Your task to perform on an android device: all mails in gmail Image 0: 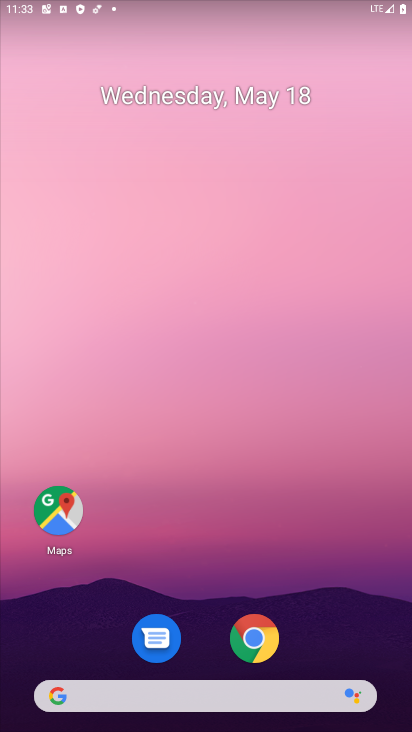
Step 0: drag from (374, 607) to (345, 65)
Your task to perform on an android device: all mails in gmail Image 1: 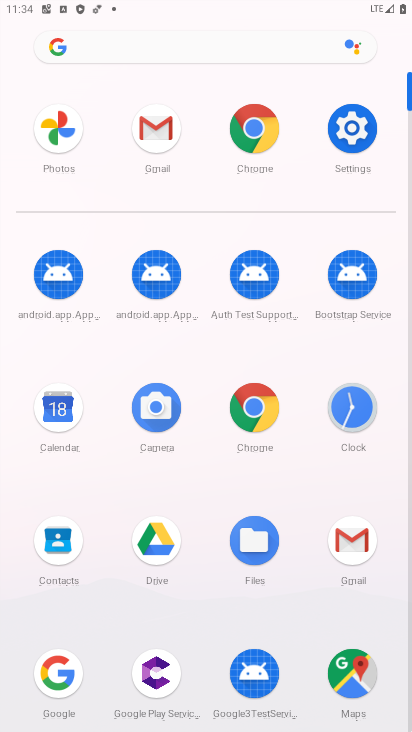
Step 1: click (355, 555)
Your task to perform on an android device: all mails in gmail Image 2: 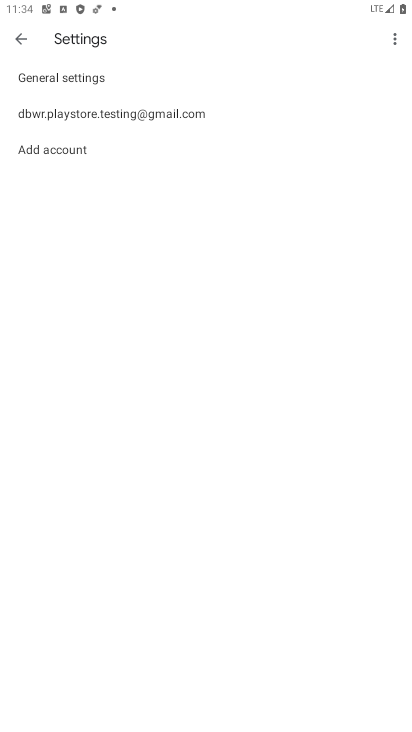
Step 2: press back button
Your task to perform on an android device: all mails in gmail Image 3: 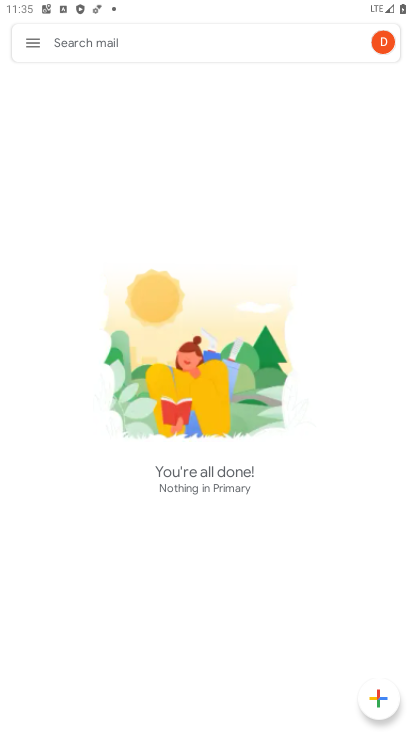
Step 3: click (27, 38)
Your task to perform on an android device: all mails in gmail Image 4: 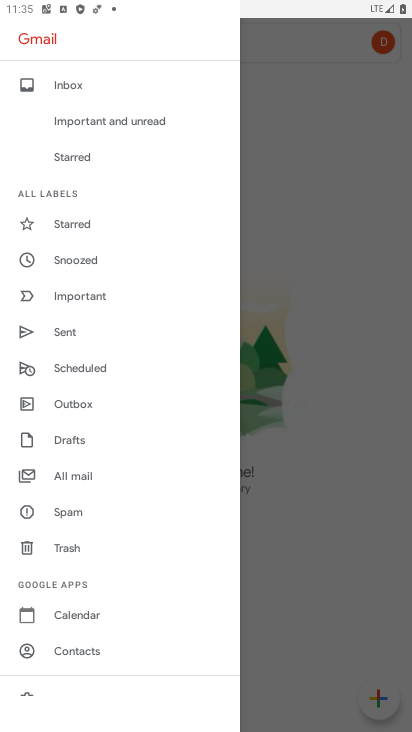
Step 4: click (127, 474)
Your task to perform on an android device: all mails in gmail Image 5: 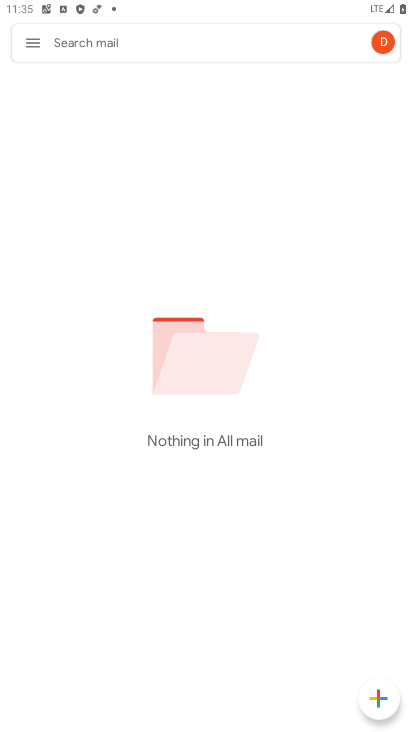
Step 5: task complete